Your task to perform on an android device: Go to Yahoo.com Image 0: 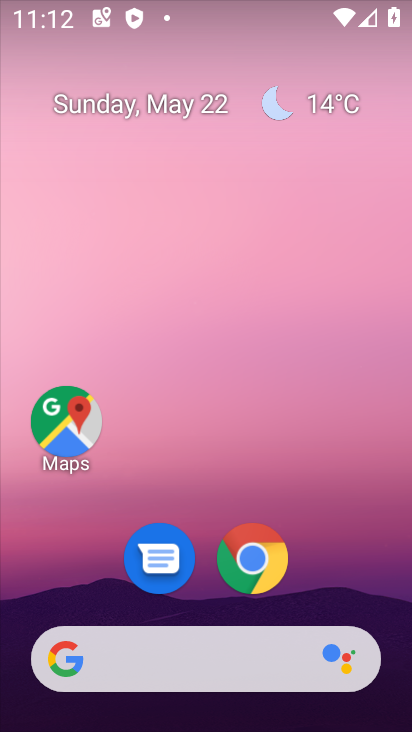
Step 0: click (262, 568)
Your task to perform on an android device: Go to Yahoo.com Image 1: 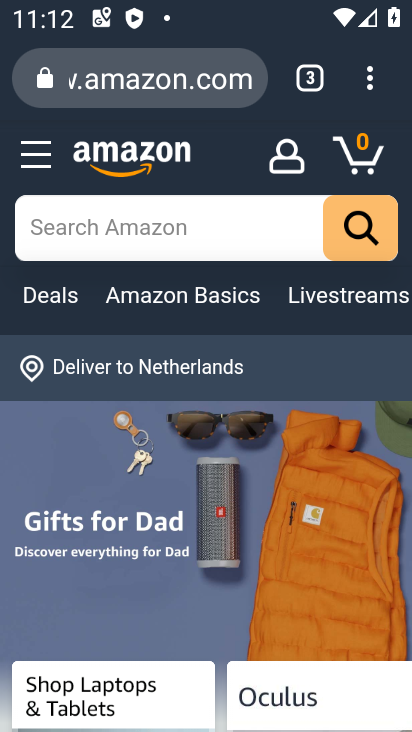
Step 1: click (141, 86)
Your task to perform on an android device: Go to Yahoo.com Image 2: 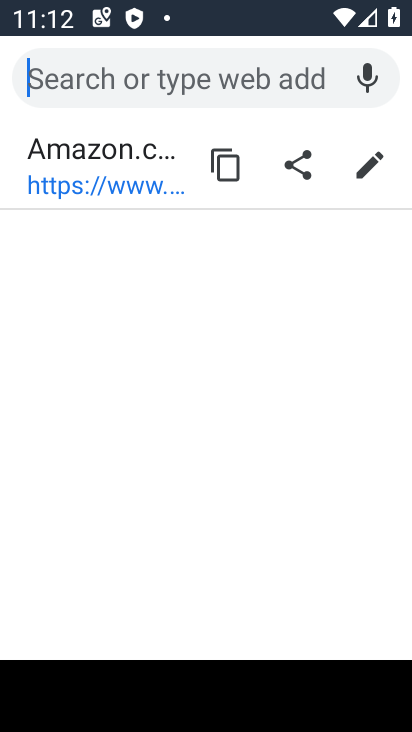
Step 2: type "yahoo.com"
Your task to perform on an android device: Go to Yahoo.com Image 3: 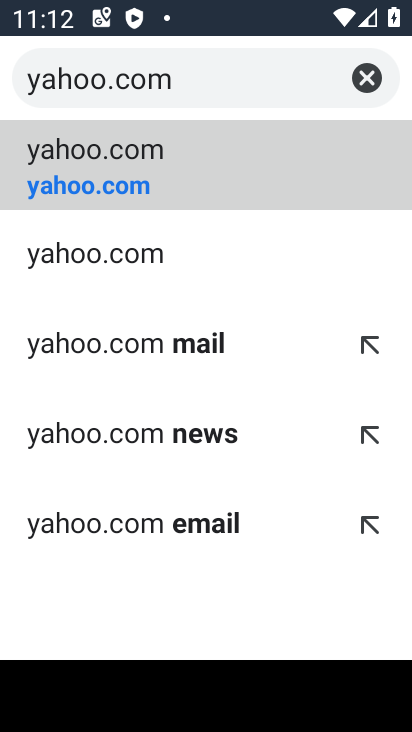
Step 3: click (67, 195)
Your task to perform on an android device: Go to Yahoo.com Image 4: 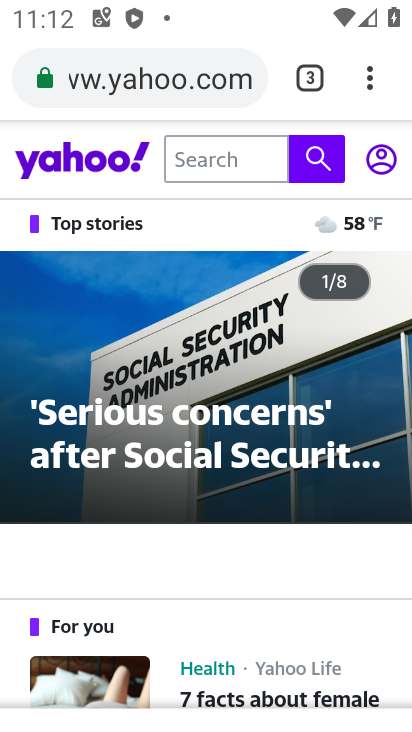
Step 4: task complete